Your task to perform on an android device: What's the weather? Image 0: 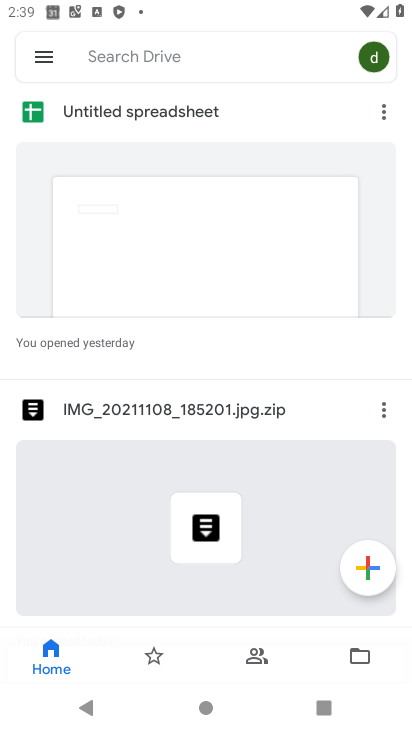
Step 0: press home button
Your task to perform on an android device: What's the weather? Image 1: 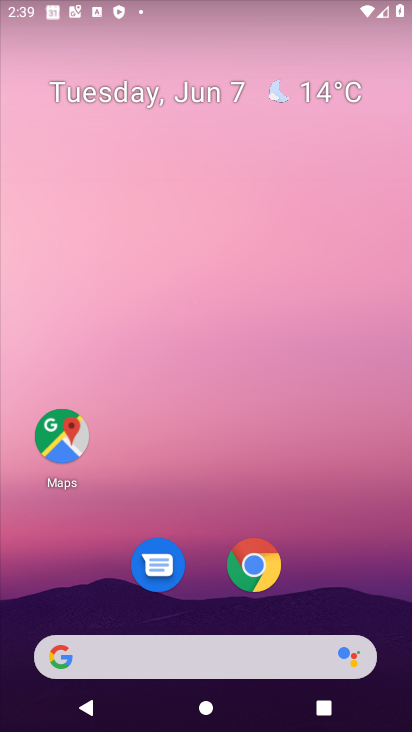
Step 1: drag from (237, 668) to (285, 0)
Your task to perform on an android device: What's the weather? Image 2: 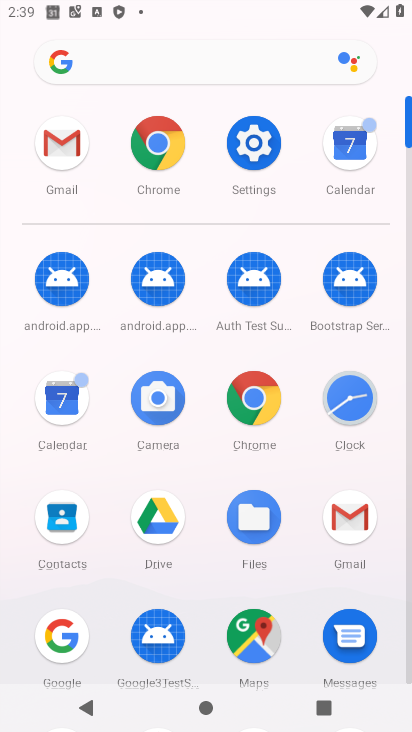
Step 2: press home button
Your task to perform on an android device: What's the weather? Image 3: 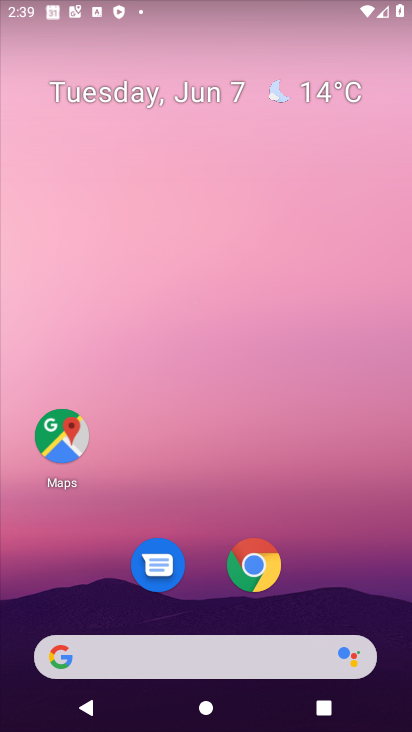
Step 3: drag from (25, 298) to (399, 258)
Your task to perform on an android device: What's the weather? Image 4: 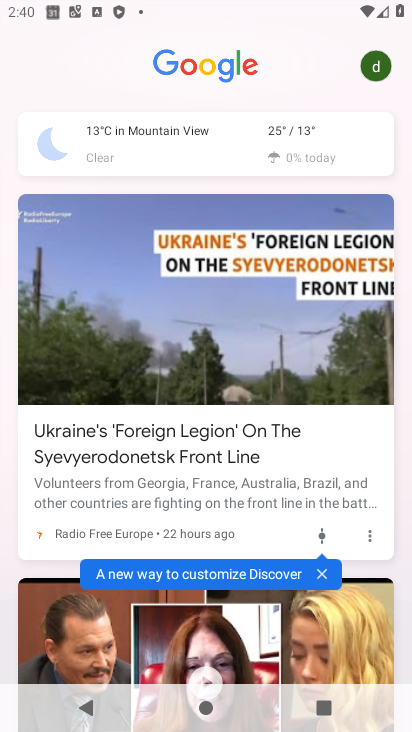
Step 4: click (217, 147)
Your task to perform on an android device: What's the weather? Image 5: 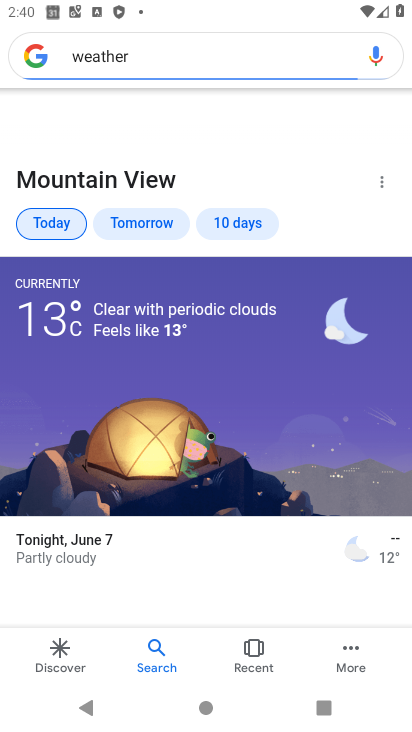
Step 5: task complete